Your task to perform on an android device: Open privacy settings Image 0: 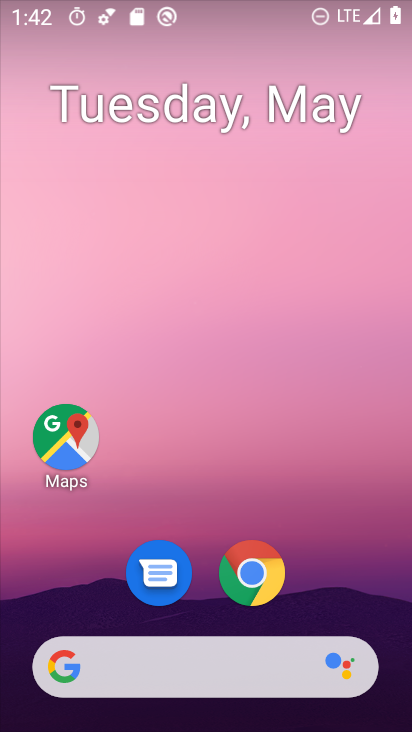
Step 0: drag from (348, 530) to (298, 111)
Your task to perform on an android device: Open privacy settings Image 1: 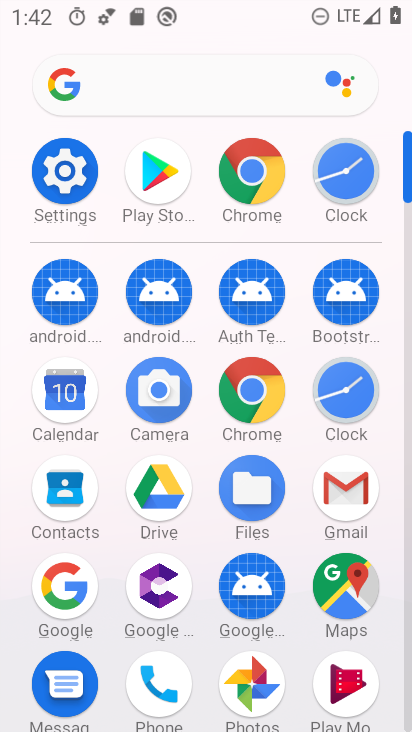
Step 1: click (31, 158)
Your task to perform on an android device: Open privacy settings Image 2: 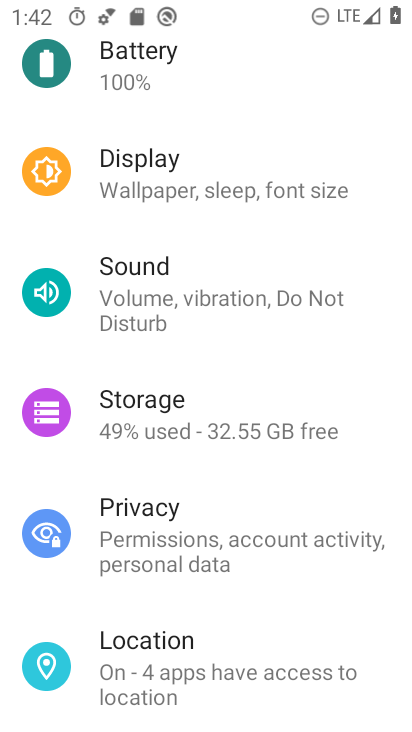
Step 2: click (133, 545)
Your task to perform on an android device: Open privacy settings Image 3: 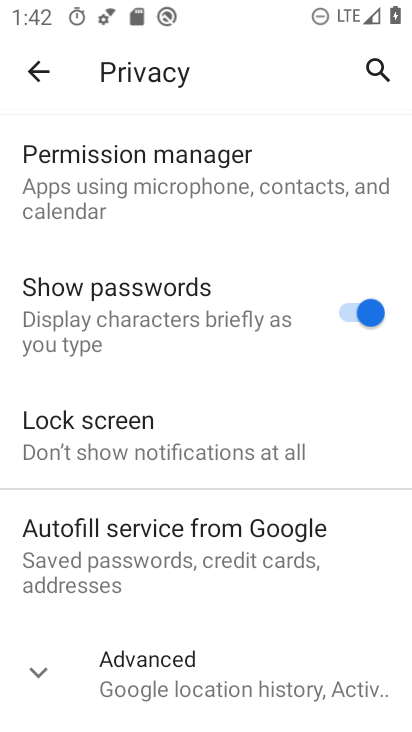
Step 3: task complete